Your task to perform on an android device: stop showing notifications on the lock screen Image 0: 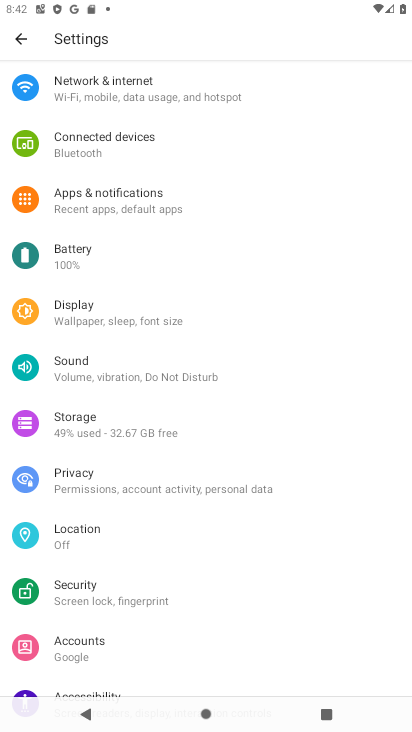
Step 0: press home button
Your task to perform on an android device: stop showing notifications on the lock screen Image 1: 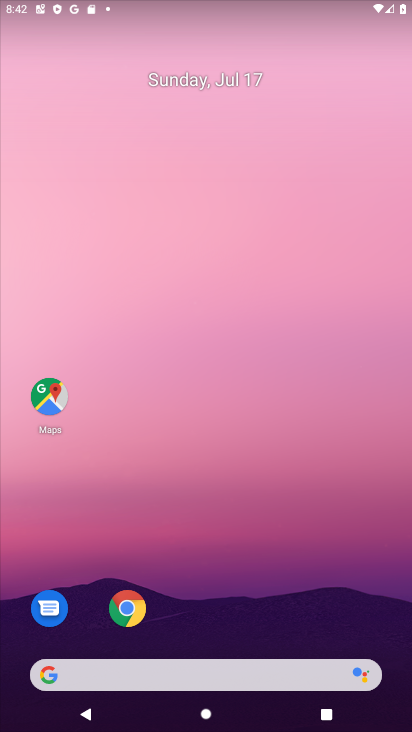
Step 1: drag from (165, 664) to (256, 248)
Your task to perform on an android device: stop showing notifications on the lock screen Image 2: 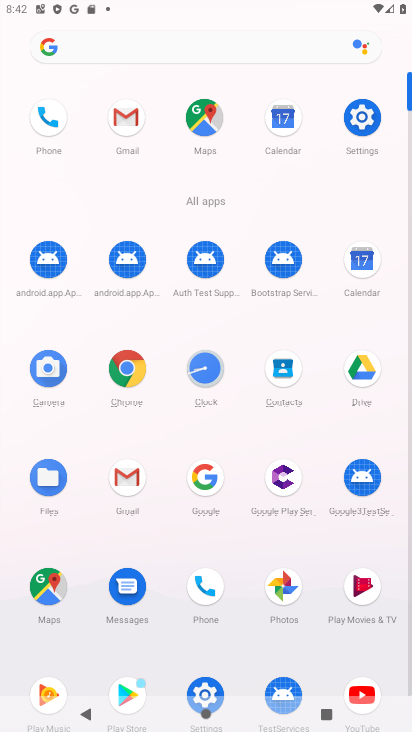
Step 2: click (358, 126)
Your task to perform on an android device: stop showing notifications on the lock screen Image 3: 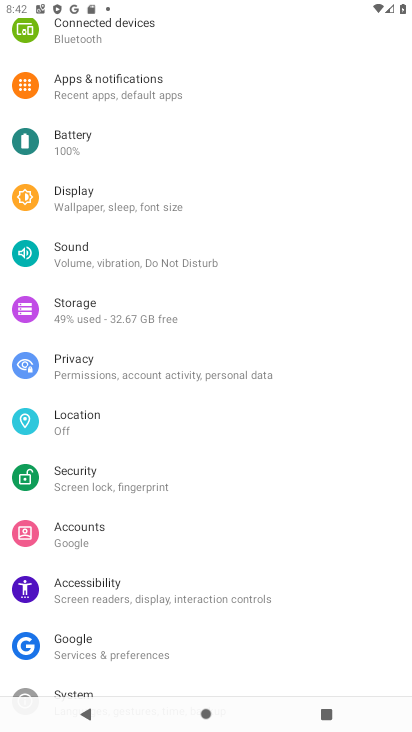
Step 3: click (84, 363)
Your task to perform on an android device: stop showing notifications on the lock screen Image 4: 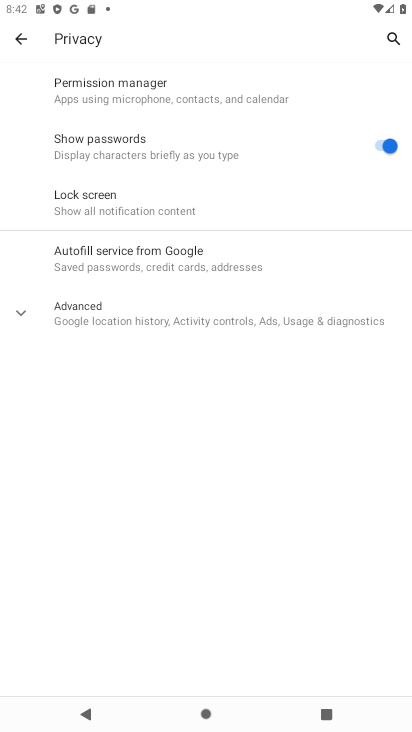
Step 4: click (104, 205)
Your task to perform on an android device: stop showing notifications on the lock screen Image 5: 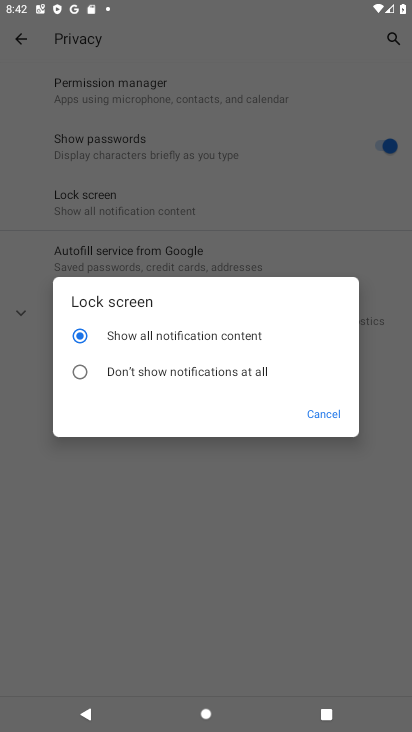
Step 5: click (100, 370)
Your task to perform on an android device: stop showing notifications on the lock screen Image 6: 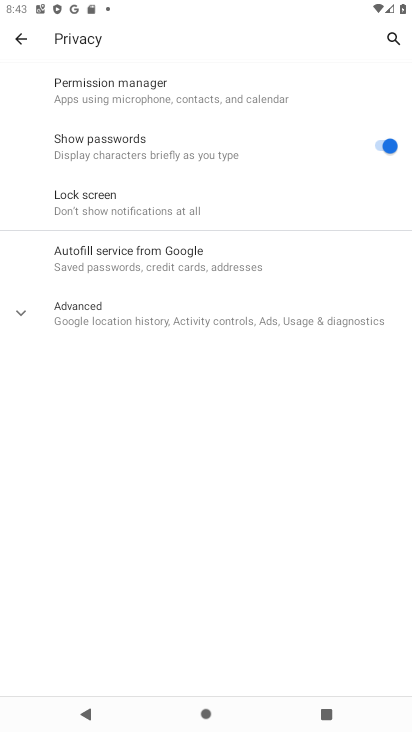
Step 6: task complete